Your task to perform on an android device: empty trash in google photos Image 0: 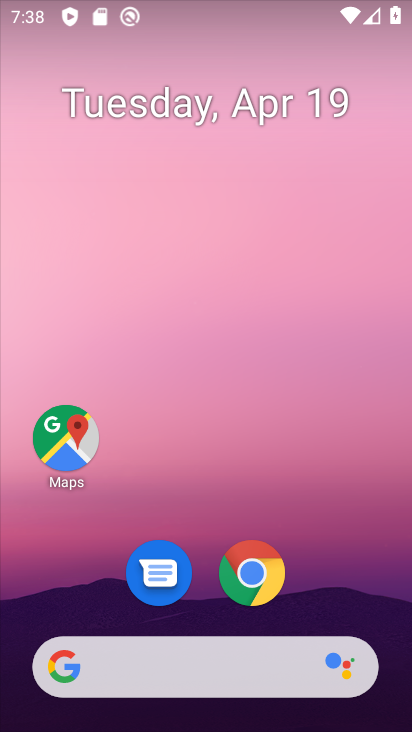
Step 0: drag from (278, 334) to (284, 57)
Your task to perform on an android device: empty trash in google photos Image 1: 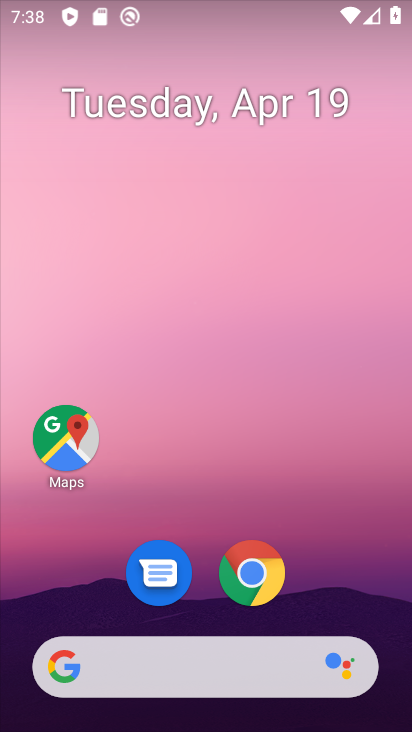
Step 1: drag from (335, 517) to (311, 23)
Your task to perform on an android device: empty trash in google photos Image 2: 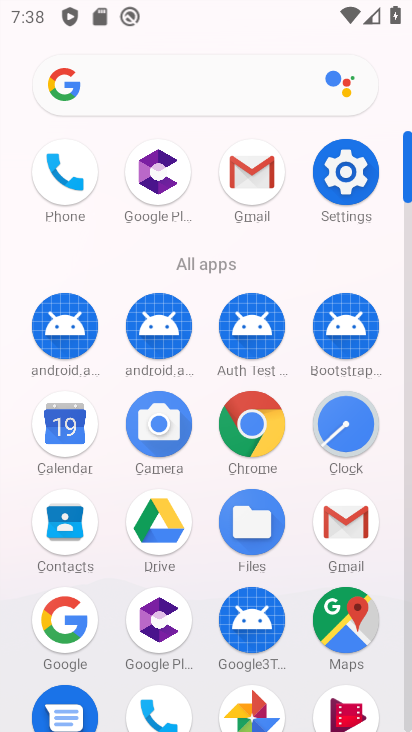
Step 2: drag from (295, 672) to (275, 277)
Your task to perform on an android device: empty trash in google photos Image 3: 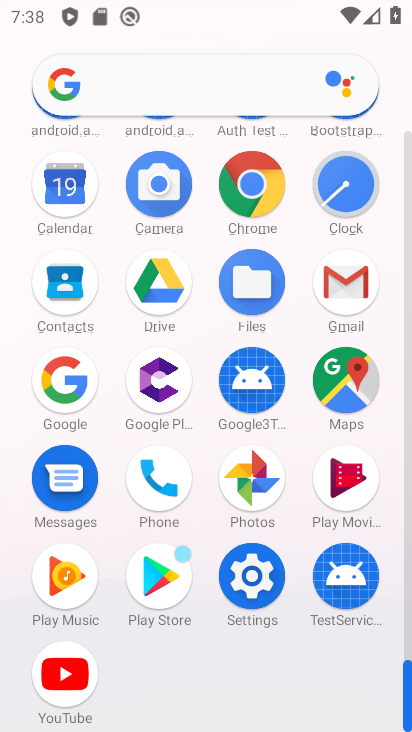
Step 3: click (260, 477)
Your task to perform on an android device: empty trash in google photos Image 4: 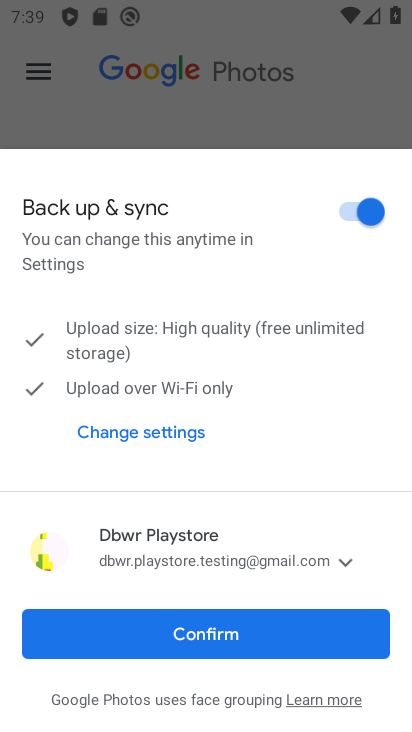
Step 4: click (325, 628)
Your task to perform on an android device: empty trash in google photos Image 5: 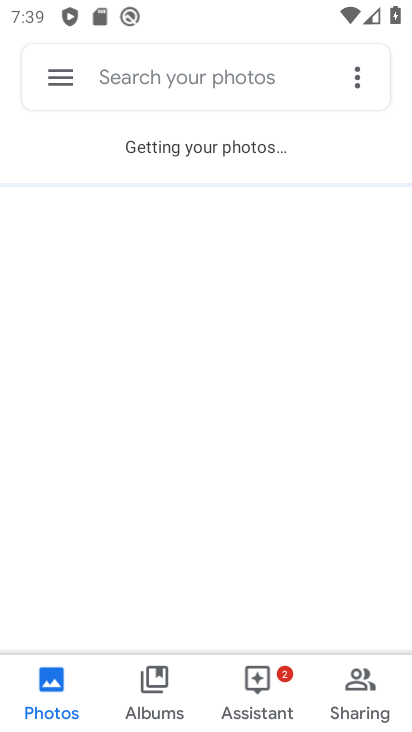
Step 5: click (65, 69)
Your task to perform on an android device: empty trash in google photos Image 6: 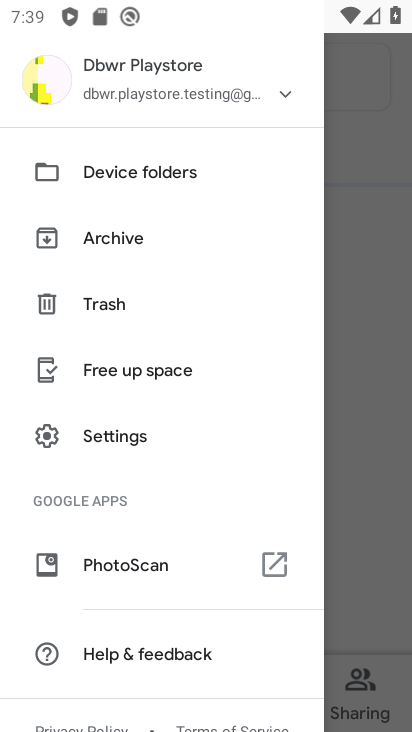
Step 6: click (111, 306)
Your task to perform on an android device: empty trash in google photos Image 7: 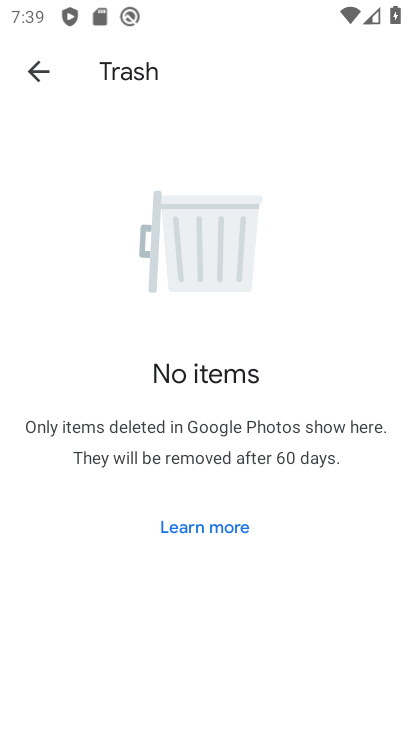
Step 7: task complete